Your task to perform on an android device: change the clock style Image 0: 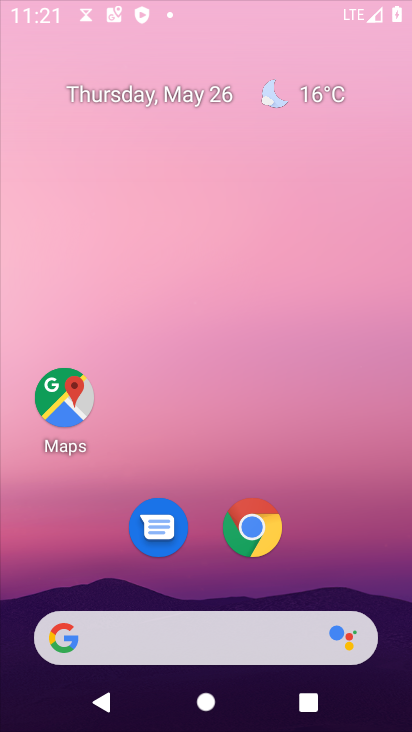
Step 0: drag from (175, 70) to (181, 8)
Your task to perform on an android device: change the clock style Image 1: 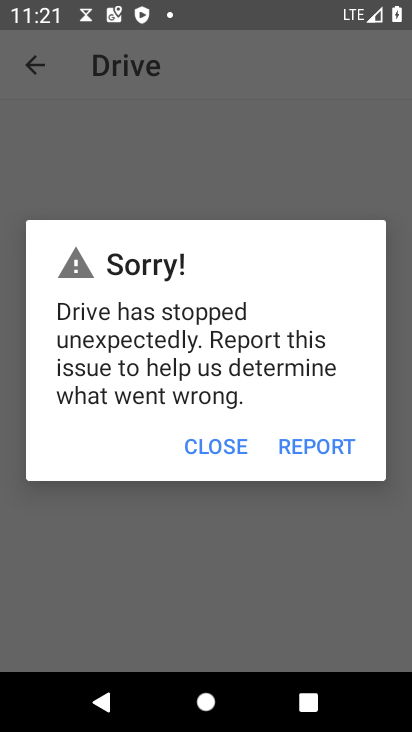
Step 1: press home button
Your task to perform on an android device: change the clock style Image 2: 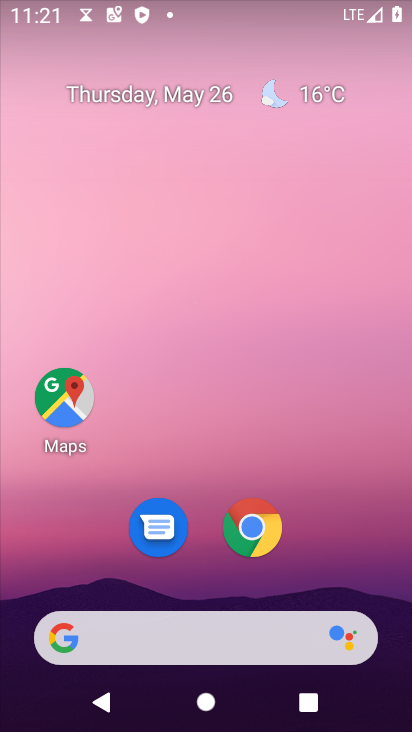
Step 2: drag from (318, 583) to (301, 26)
Your task to perform on an android device: change the clock style Image 3: 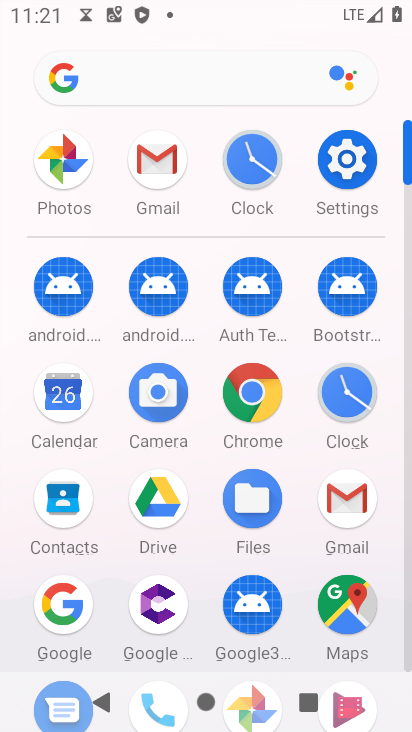
Step 3: click (355, 391)
Your task to perform on an android device: change the clock style Image 4: 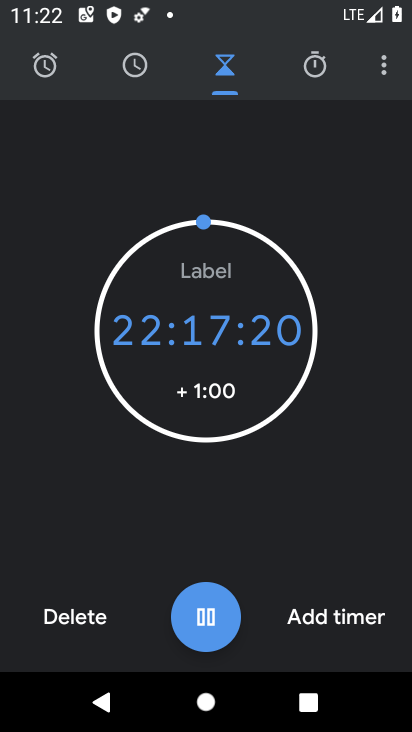
Step 4: click (367, 71)
Your task to perform on an android device: change the clock style Image 5: 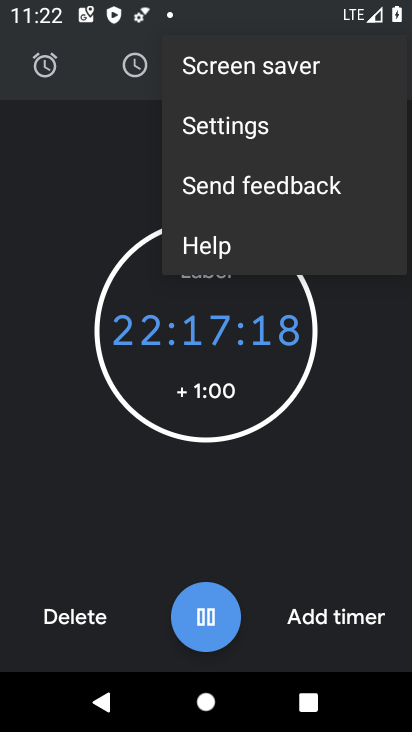
Step 5: click (235, 132)
Your task to perform on an android device: change the clock style Image 6: 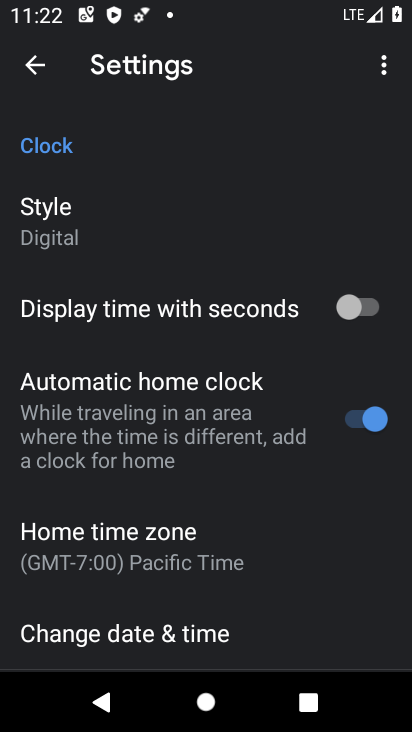
Step 6: click (63, 212)
Your task to perform on an android device: change the clock style Image 7: 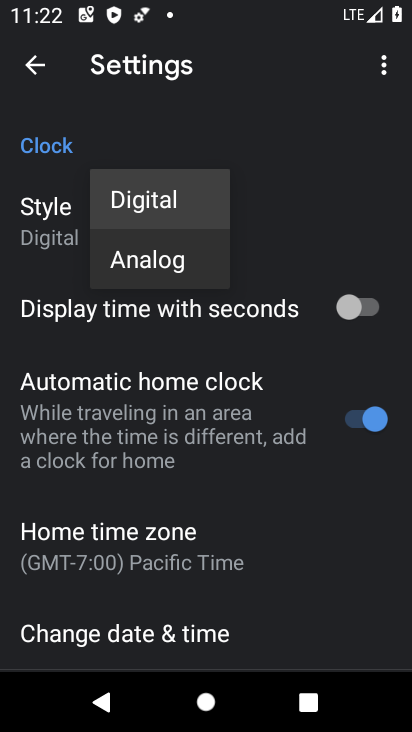
Step 7: click (162, 255)
Your task to perform on an android device: change the clock style Image 8: 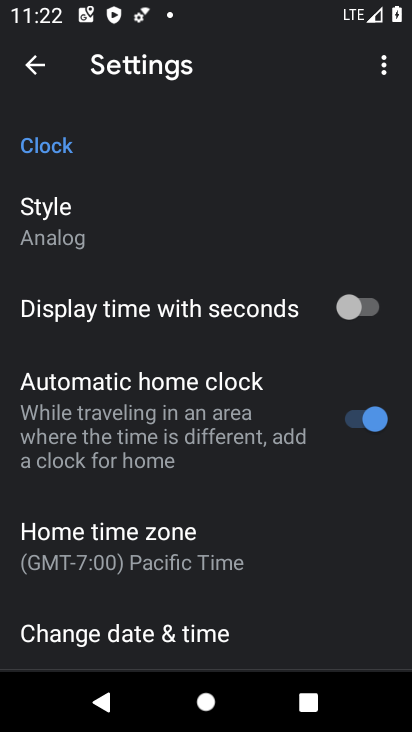
Step 8: task complete